Your task to perform on an android device: Search for sushi restaurants on Maps Image 0: 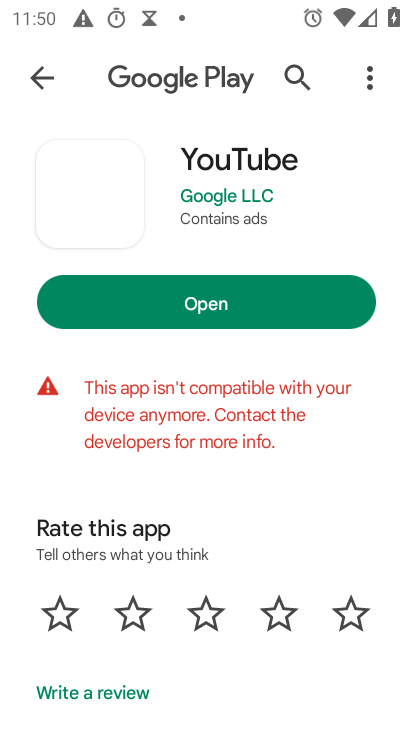
Step 0: press home button
Your task to perform on an android device: Search for sushi restaurants on Maps Image 1: 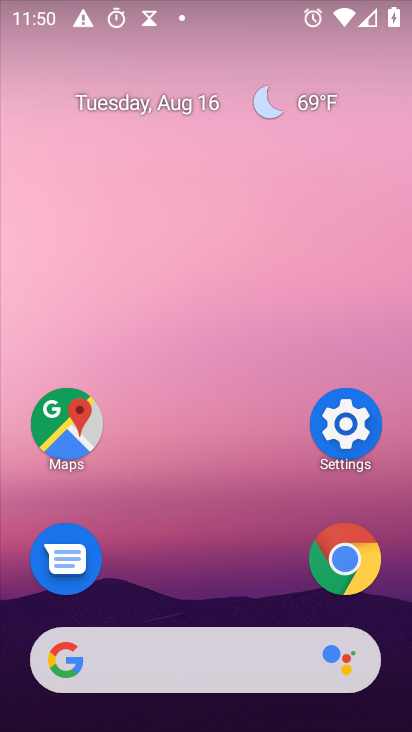
Step 1: click (69, 430)
Your task to perform on an android device: Search for sushi restaurants on Maps Image 2: 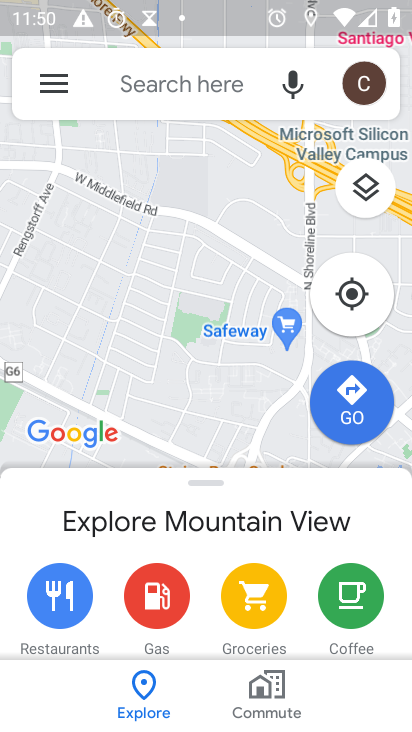
Step 2: click (147, 76)
Your task to perform on an android device: Search for sushi restaurants on Maps Image 3: 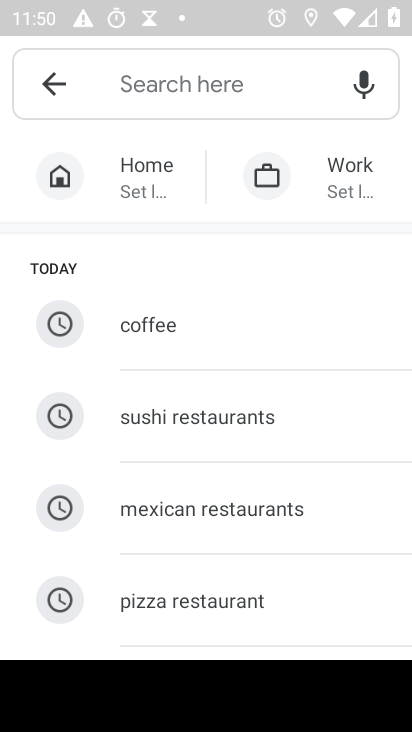
Step 3: click (209, 413)
Your task to perform on an android device: Search for sushi restaurants on Maps Image 4: 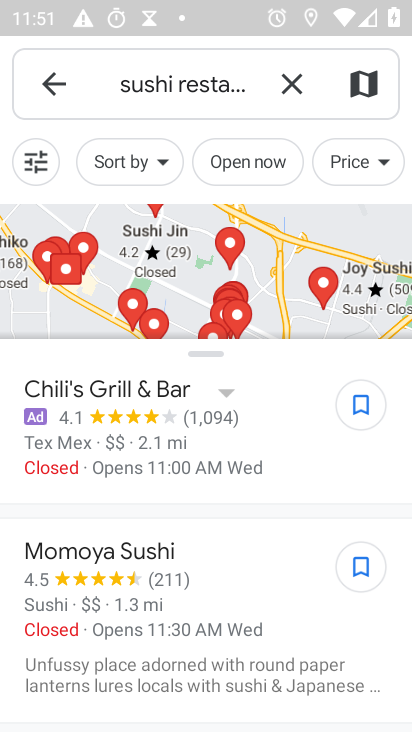
Step 4: task complete